Your task to perform on an android device: Go to display settings Image 0: 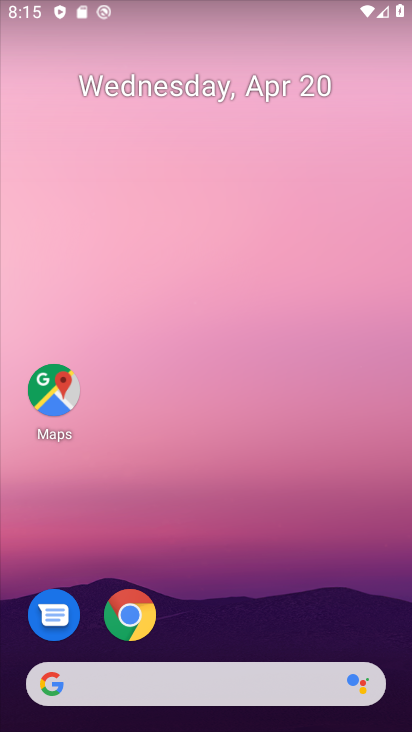
Step 0: drag from (13, 646) to (300, 168)
Your task to perform on an android device: Go to display settings Image 1: 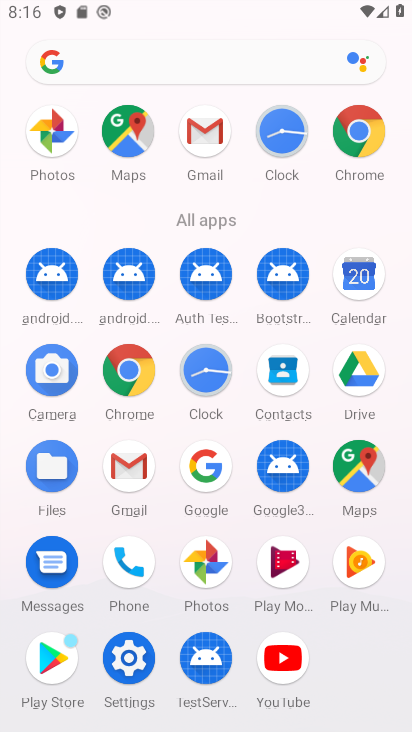
Step 1: click (122, 646)
Your task to perform on an android device: Go to display settings Image 2: 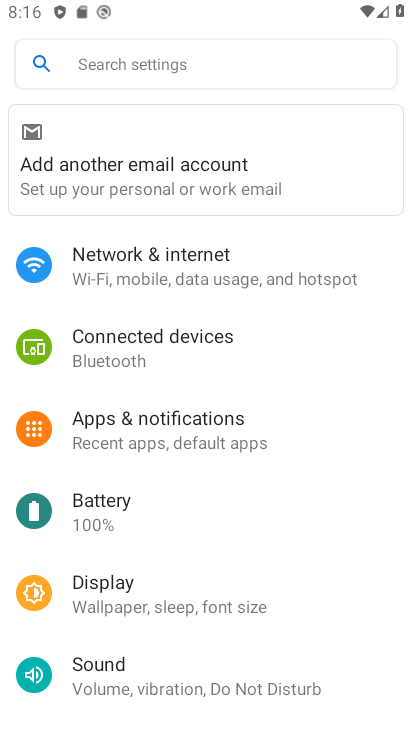
Step 2: click (114, 605)
Your task to perform on an android device: Go to display settings Image 3: 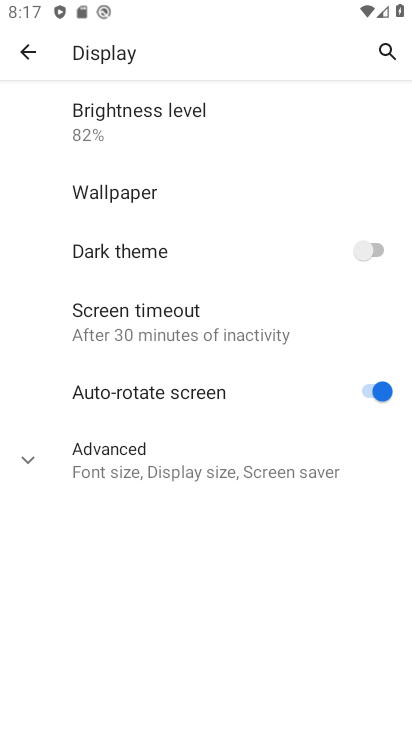
Step 3: task complete